Your task to perform on an android device: turn off picture-in-picture Image 0: 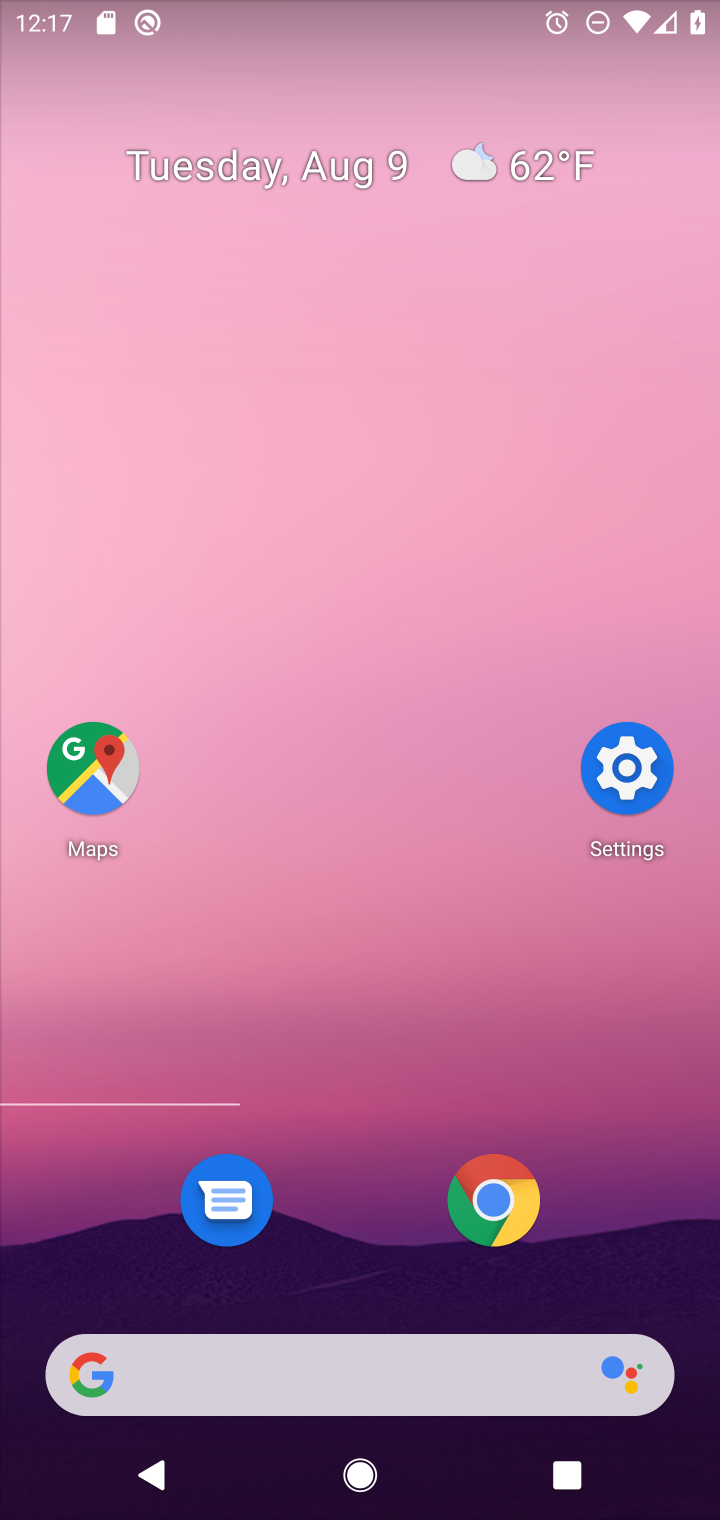
Step 0: press home button
Your task to perform on an android device: turn off picture-in-picture Image 1: 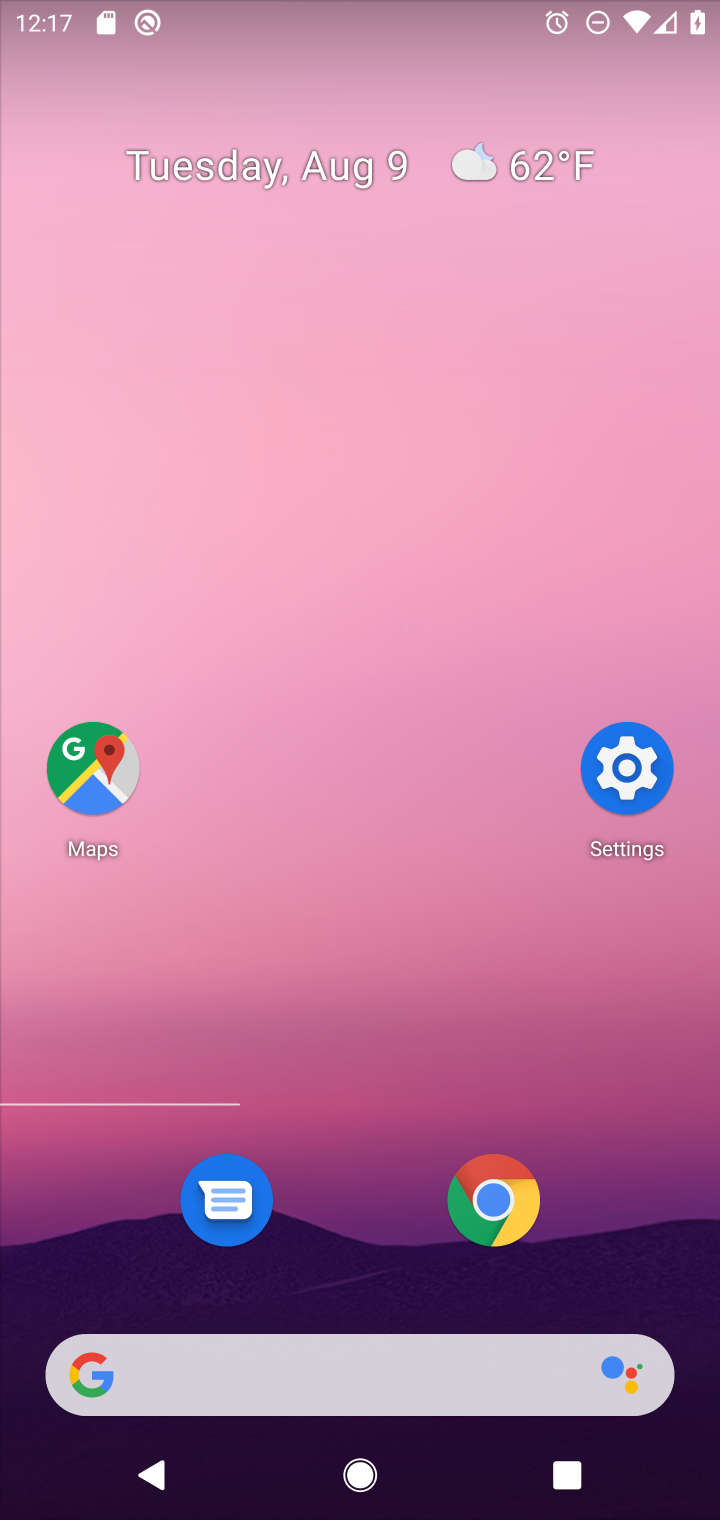
Step 1: click (494, 1193)
Your task to perform on an android device: turn off picture-in-picture Image 2: 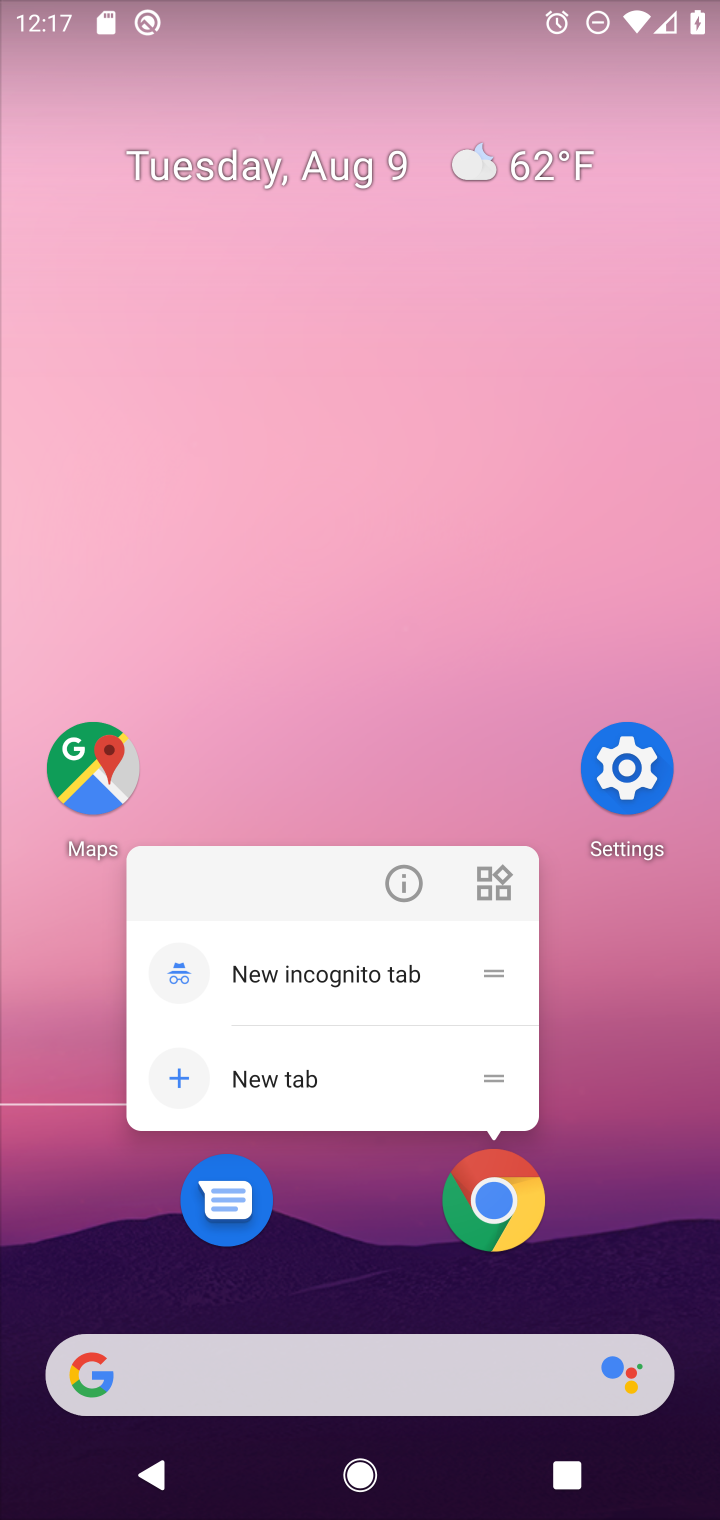
Step 2: click (402, 877)
Your task to perform on an android device: turn off picture-in-picture Image 3: 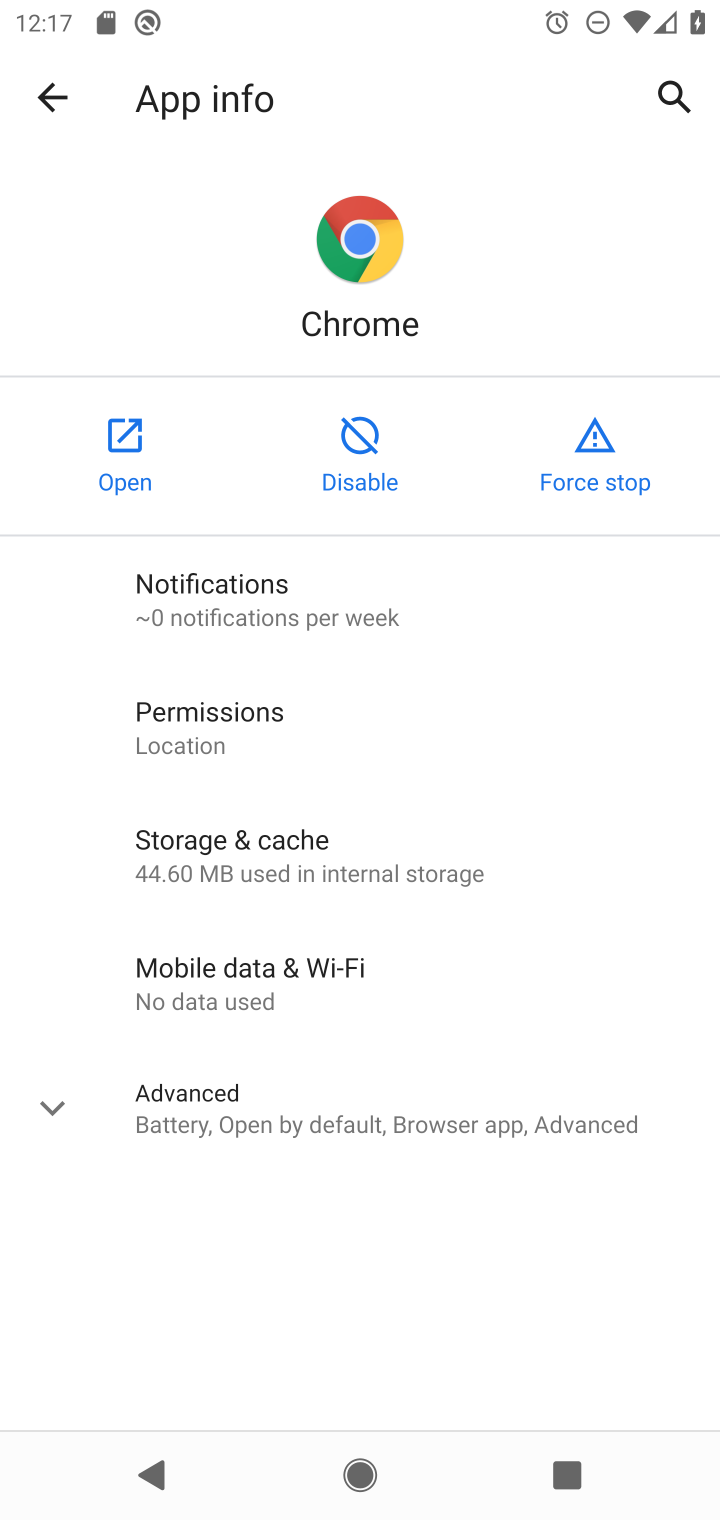
Step 3: click (211, 1117)
Your task to perform on an android device: turn off picture-in-picture Image 4: 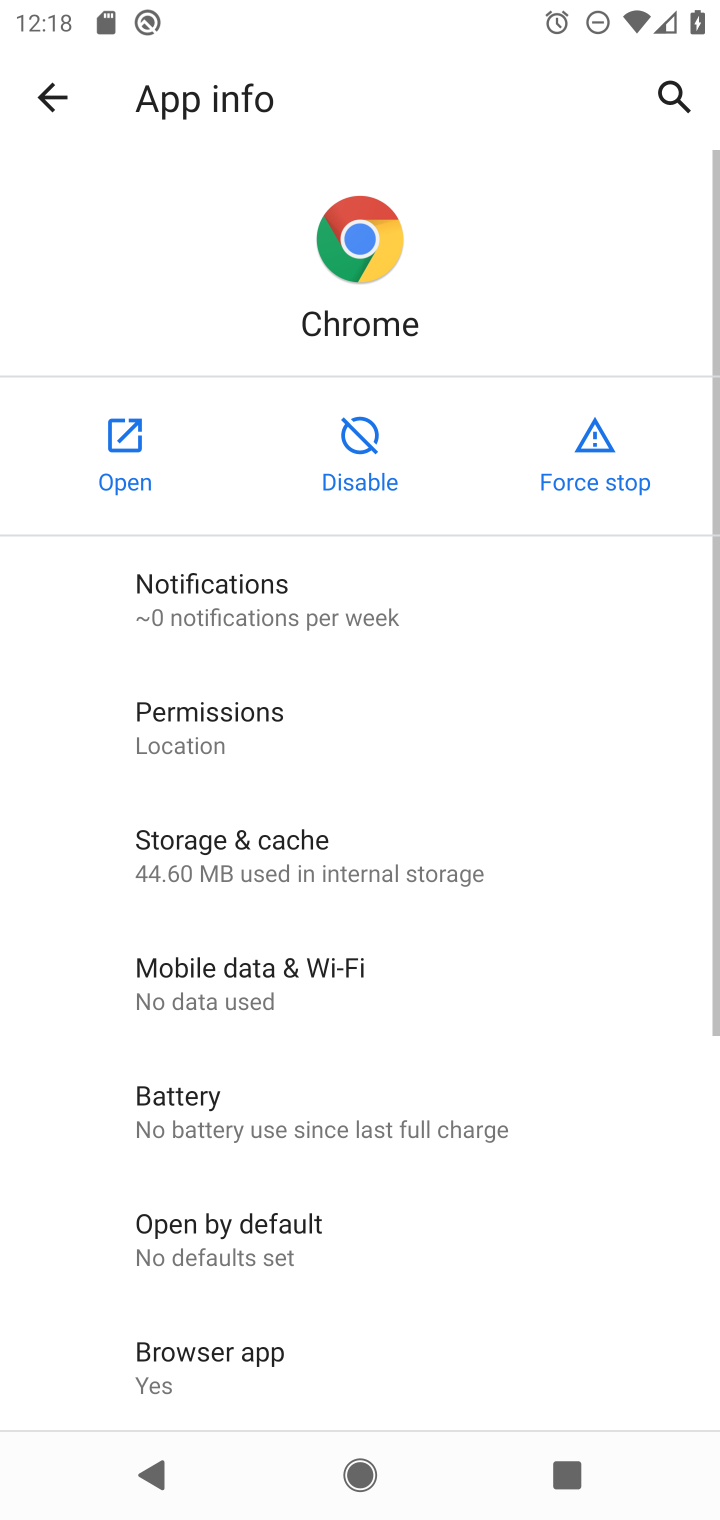
Step 4: drag from (479, 1260) to (719, 40)
Your task to perform on an android device: turn off picture-in-picture Image 5: 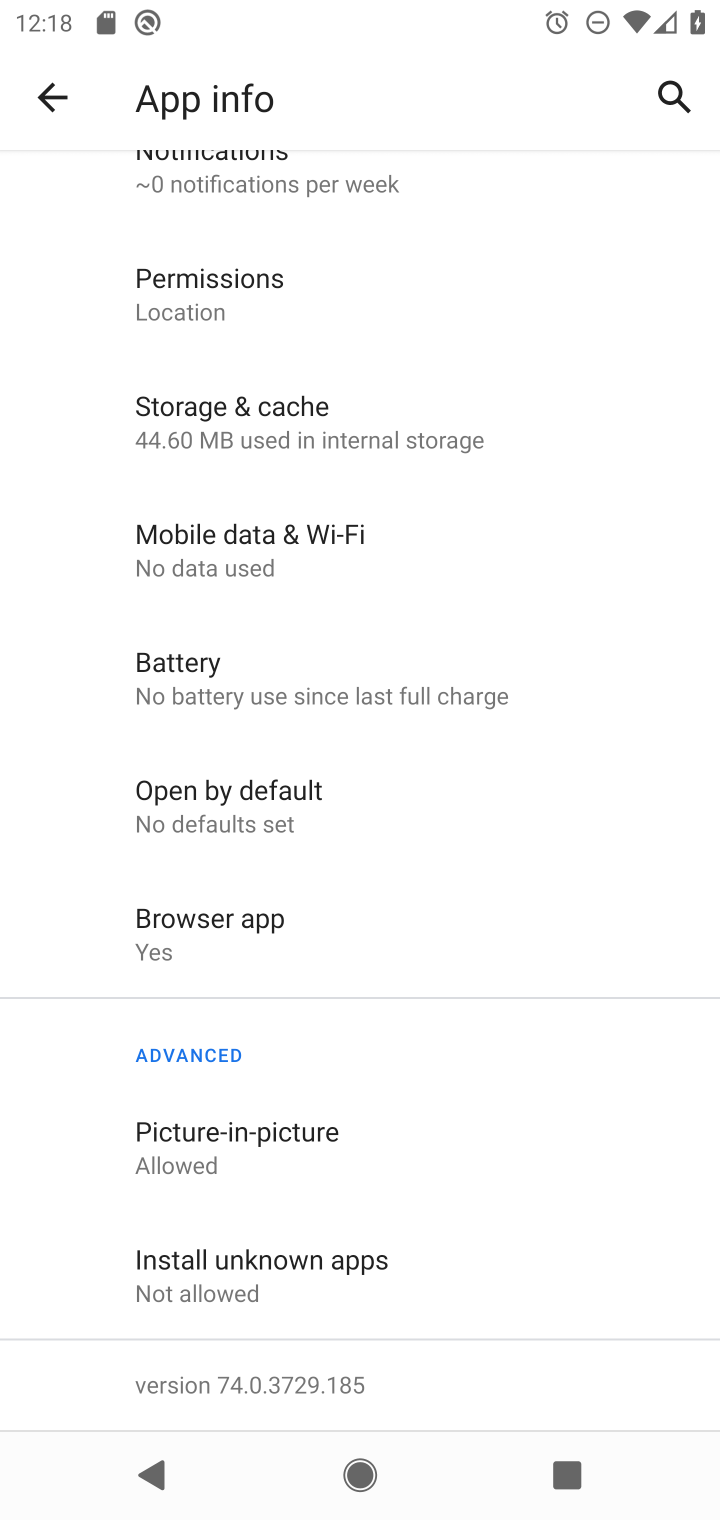
Step 5: drag from (557, 540) to (673, 423)
Your task to perform on an android device: turn off picture-in-picture Image 6: 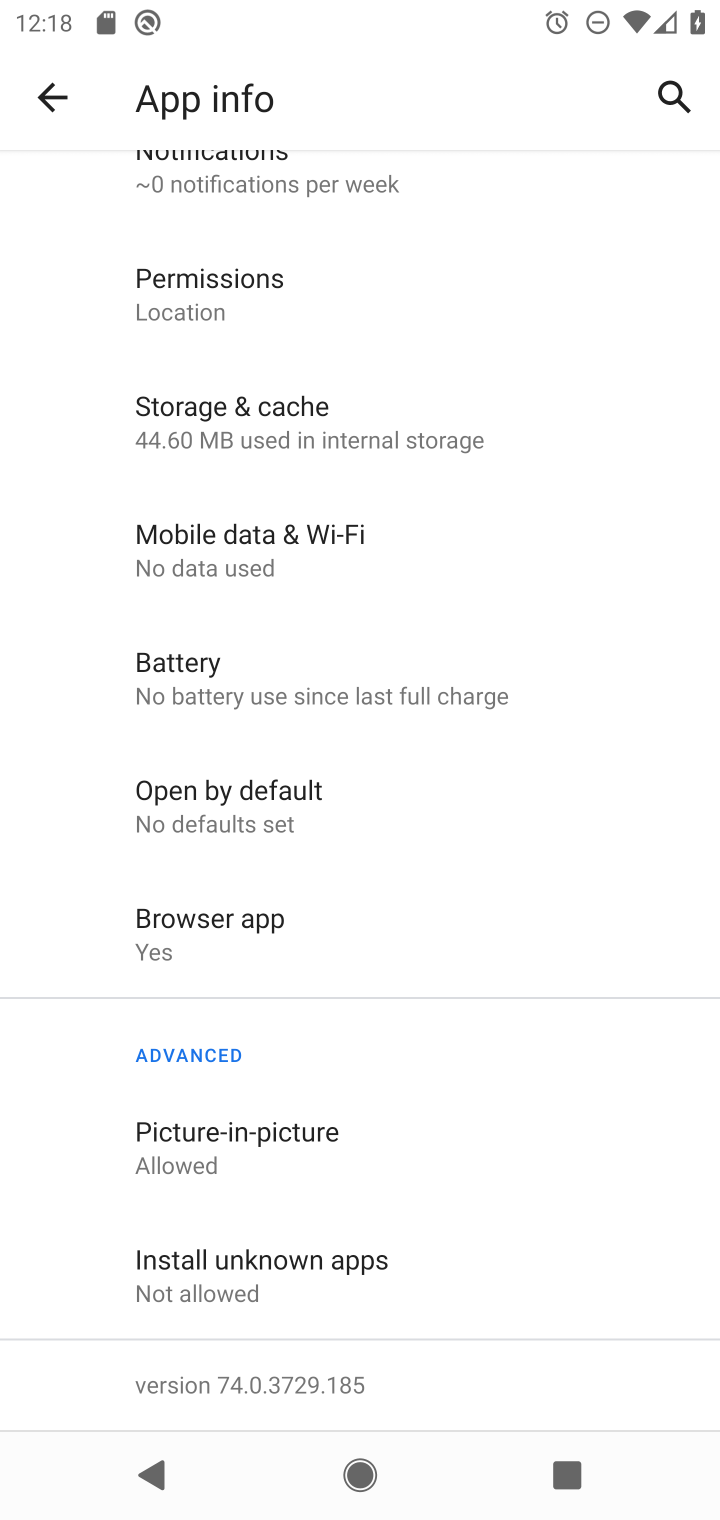
Step 6: click (240, 1118)
Your task to perform on an android device: turn off picture-in-picture Image 7: 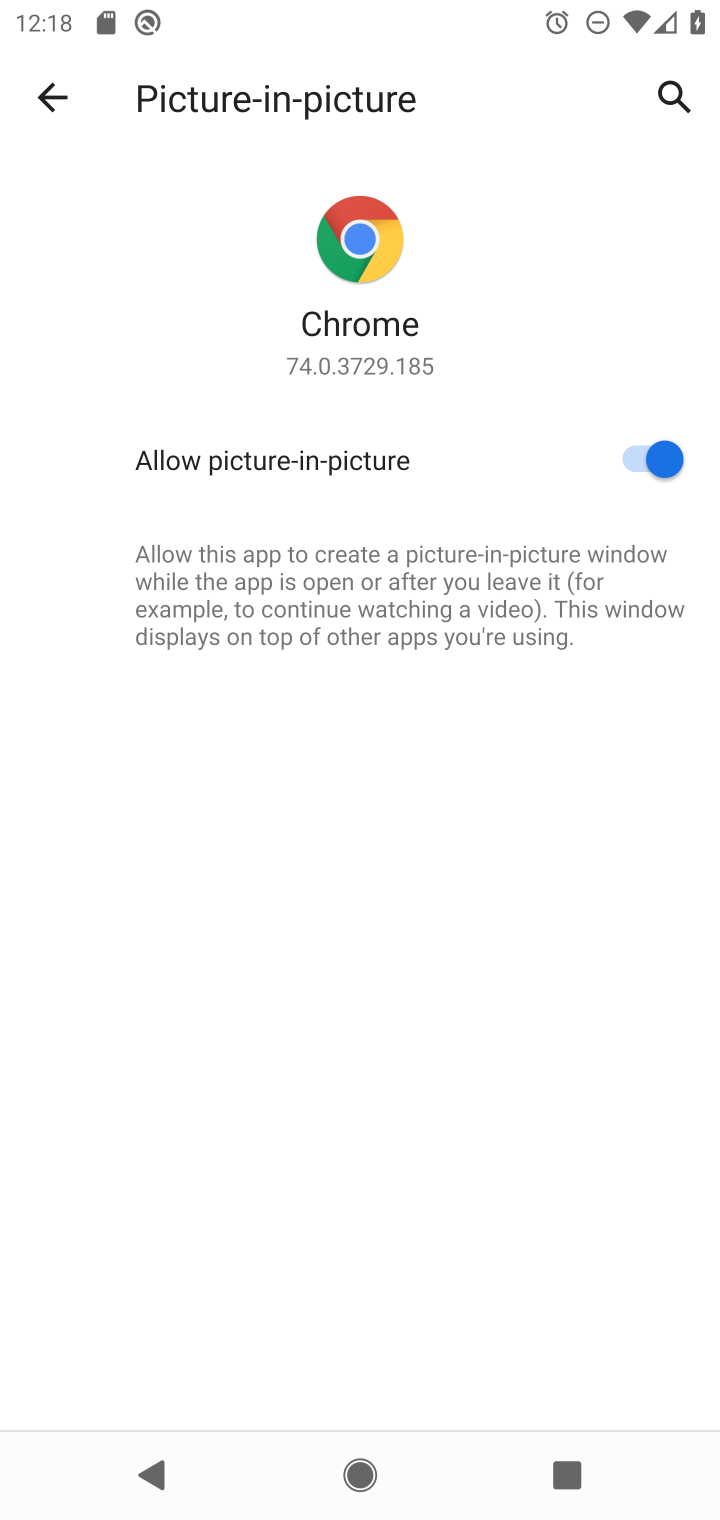
Step 7: click (635, 442)
Your task to perform on an android device: turn off picture-in-picture Image 8: 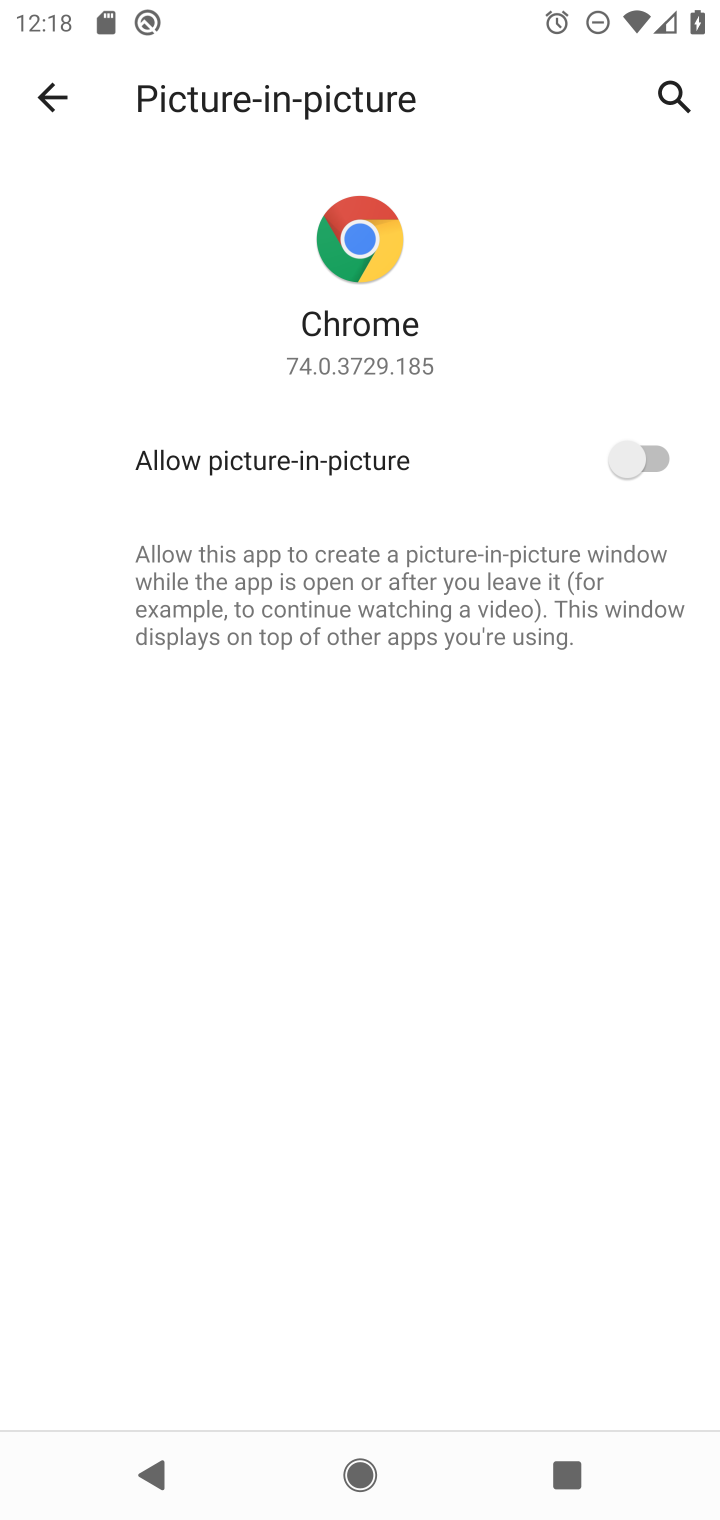
Step 8: task complete